Your task to perform on an android device: change notification settings in the gmail app Image 0: 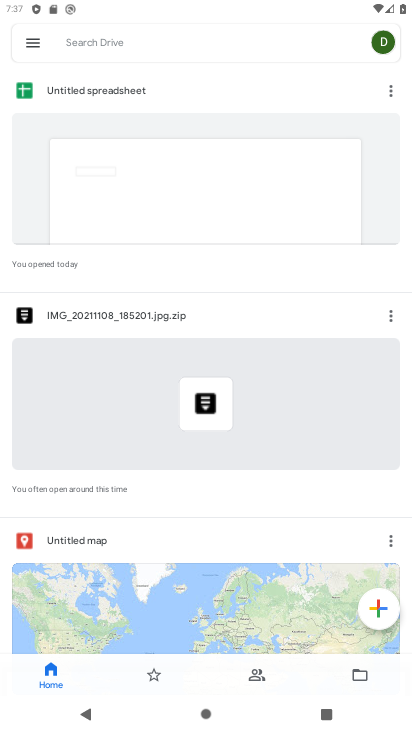
Step 0: press home button
Your task to perform on an android device: change notification settings in the gmail app Image 1: 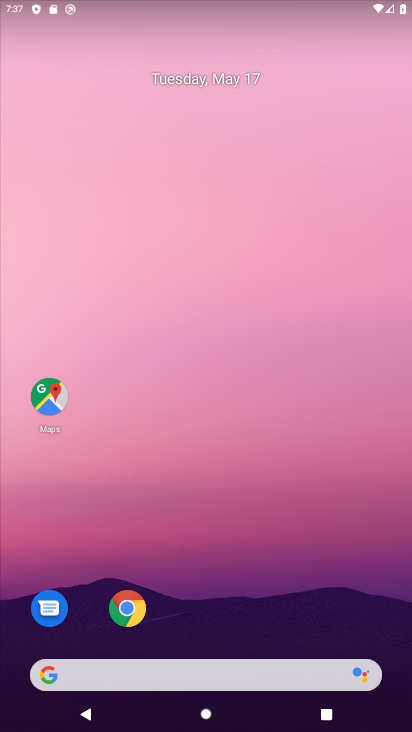
Step 1: drag from (223, 629) to (235, 295)
Your task to perform on an android device: change notification settings in the gmail app Image 2: 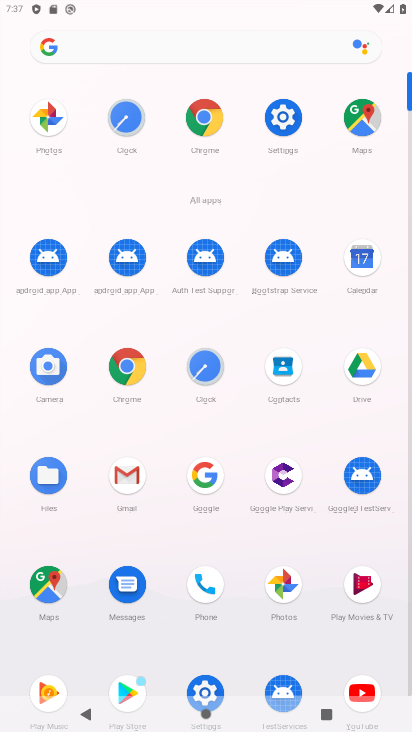
Step 2: click (134, 486)
Your task to perform on an android device: change notification settings in the gmail app Image 3: 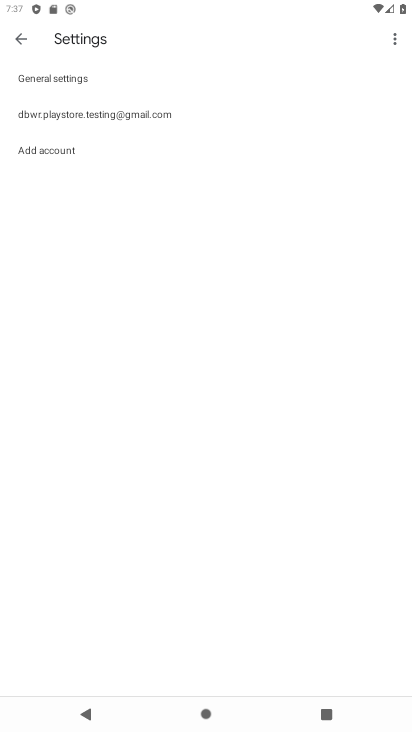
Step 3: click (144, 114)
Your task to perform on an android device: change notification settings in the gmail app Image 4: 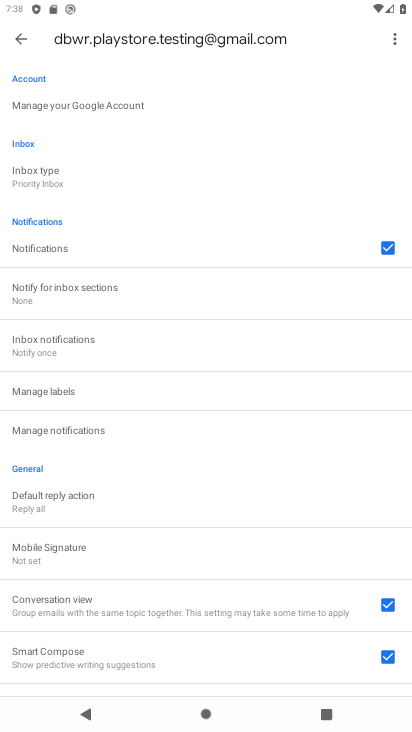
Step 4: click (101, 340)
Your task to perform on an android device: change notification settings in the gmail app Image 5: 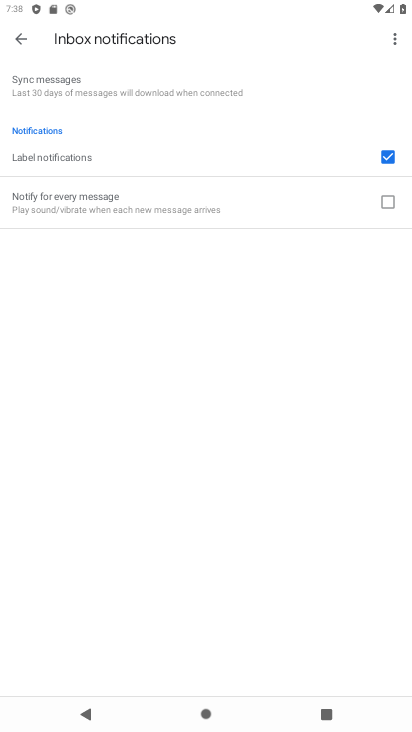
Step 5: click (386, 203)
Your task to perform on an android device: change notification settings in the gmail app Image 6: 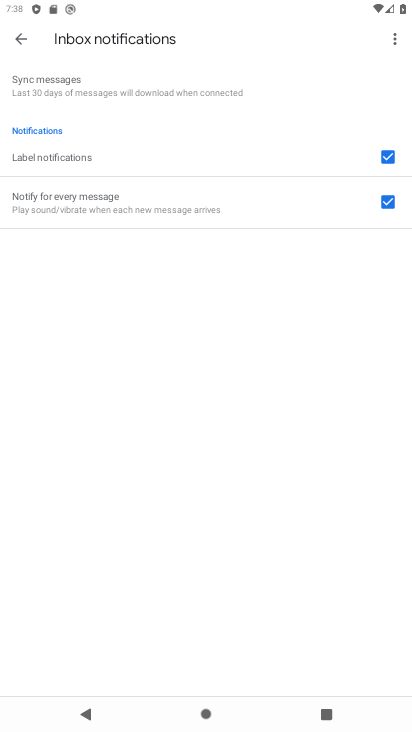
Step 6: task complete